Your task to perform on an android device: open device folders in google photos Image 0: 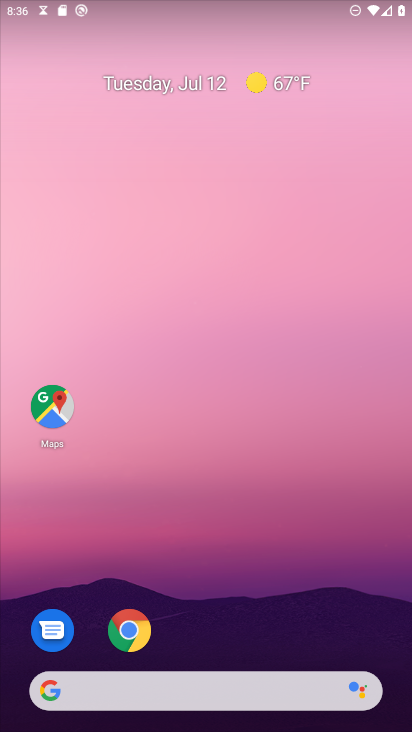
Step 0: drag from (289, 647) to (226, 116)
Your task to perform on an android device: open device folders in google photos Image 1: 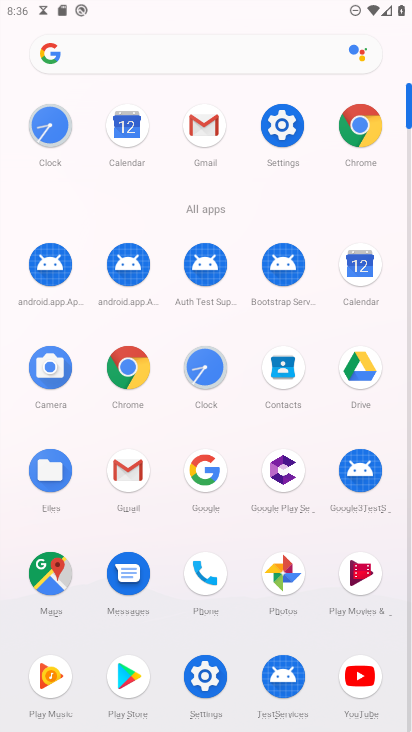
Step 1: click (288, 576)
Your task to perform on an android device: open device folders in google photos Image 2: 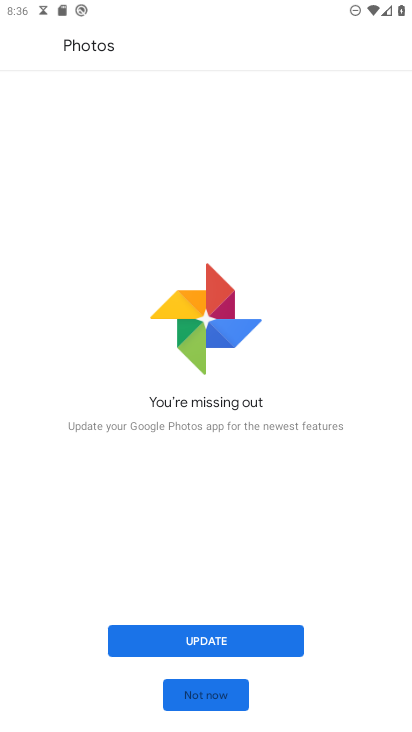
Step 2: click (237, 641)
Your task to perform on an android device: open device folders in google photos Image 3: 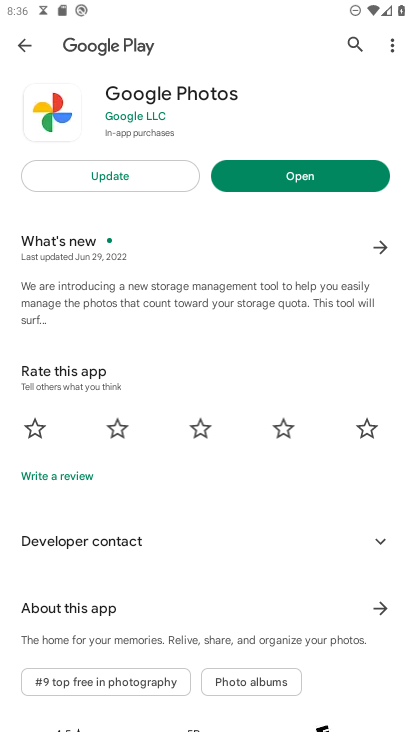
Step 3: click (115, 177)
Your task to perform on an android device: open device folders in google photos Image 4: 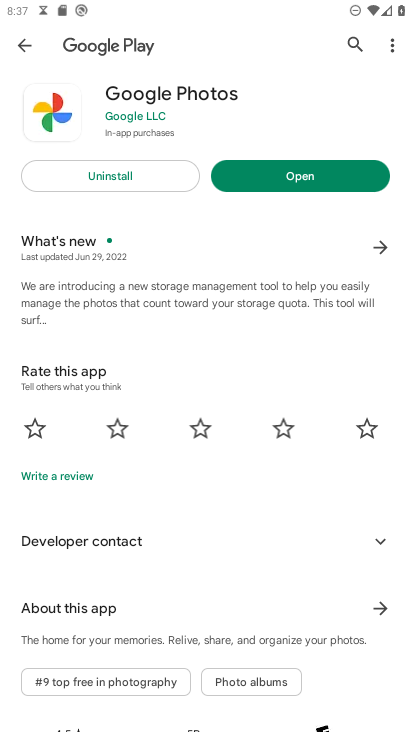
Step 4: click (350, 180)
Your task to perform on an android device: open device folders in google photos Image 5: 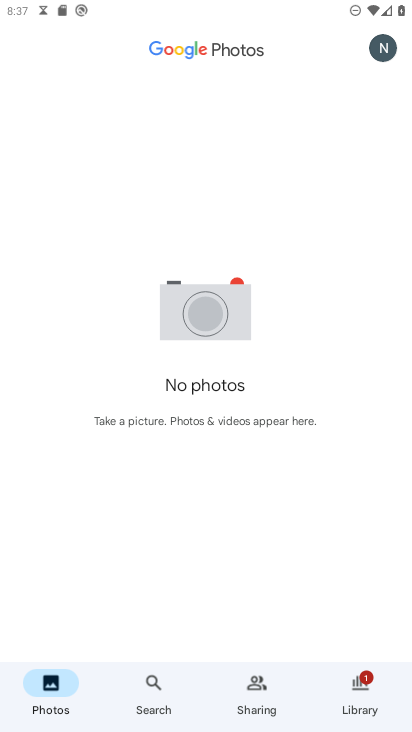
Step 5: click (363, 692)
Your task to perform on an android device: open device folders in google photos Image 6: 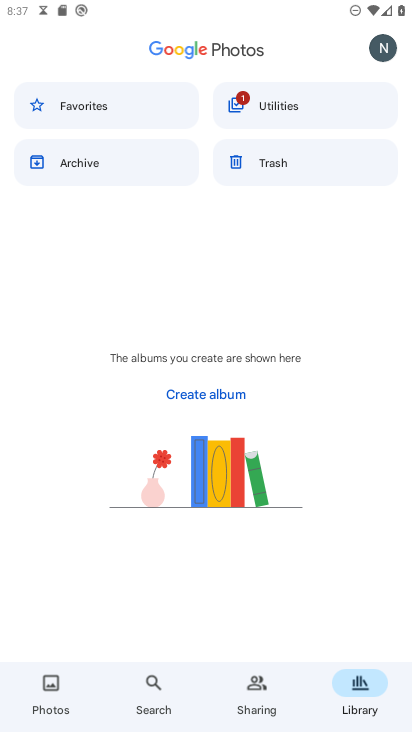
Step 6: click (260, 695)
Your task to perform on an android device: open device folders in google photos Image 7: 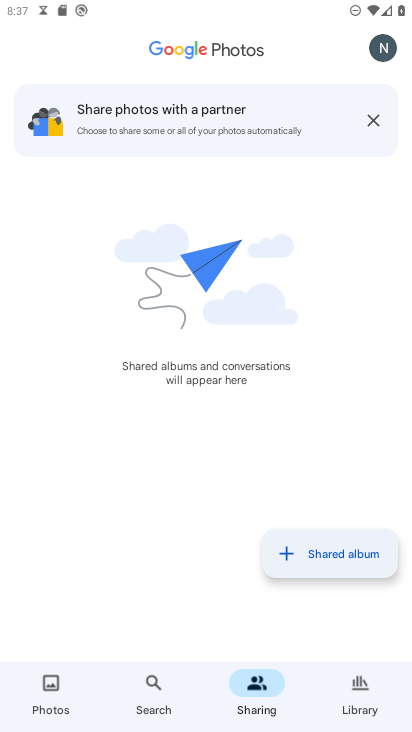
Step 7: click (158, 699)
Your task to perform on an android device: open device folders in google photos Image 8: 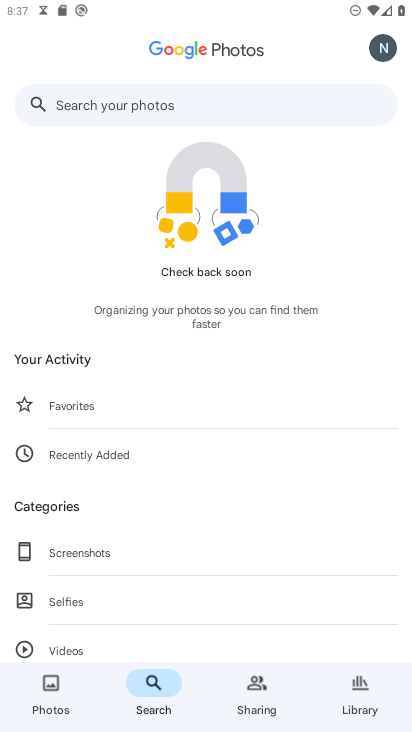
Step 8: task complete